Your task to perform on an android device: Go to notification settings Image 0: 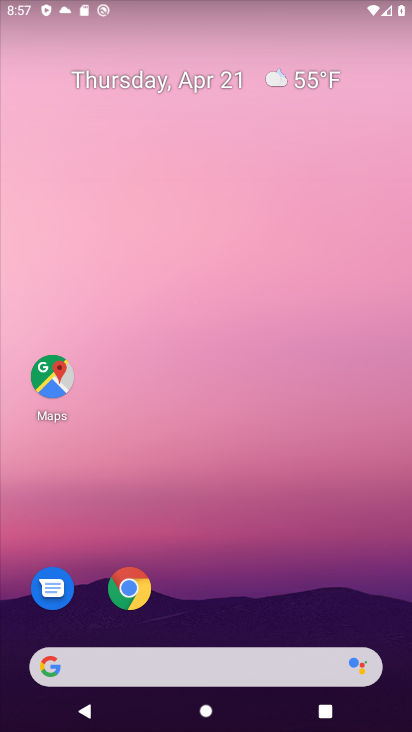
Step 0: drag from (209, 530) to (166, 7)
Your task to perform on an android device: Go to notification settings Image 1: 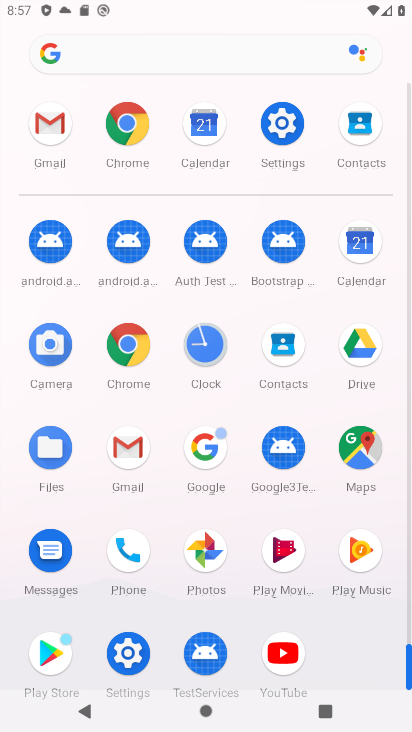
Step 1: click (283, 123)
Your task to perform on an android device: Go to notification settings Image 2: 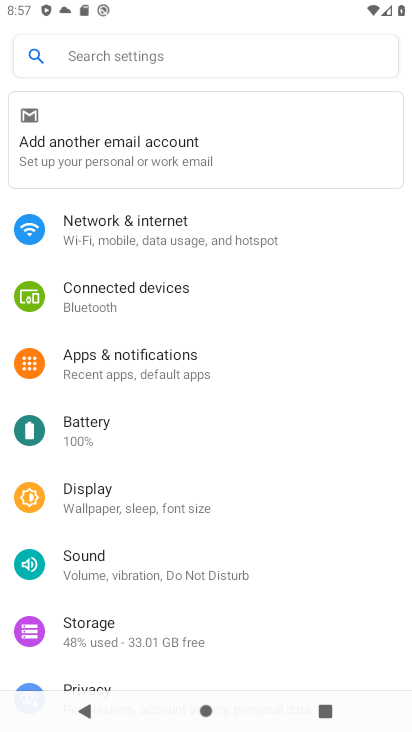
Step 2: click (191, 355)
Your task to perform on an android device: Go to notification settings Image 3: 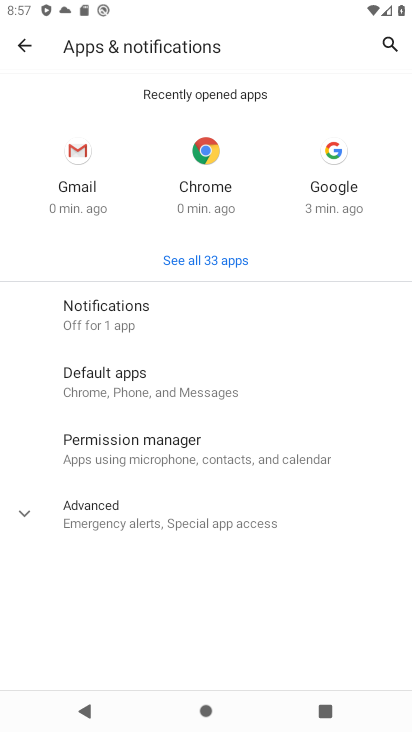
Step 3: click (158, 319)
Your task to perform on an android device: Go to notification settings Image 4: 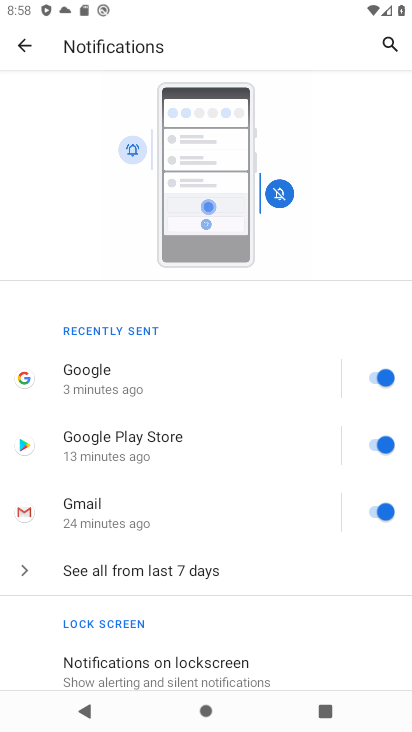
Step 4: drag from (209, 568) to (289, 148)
Your task to perform on an android device: Go to notification settings Image 5: 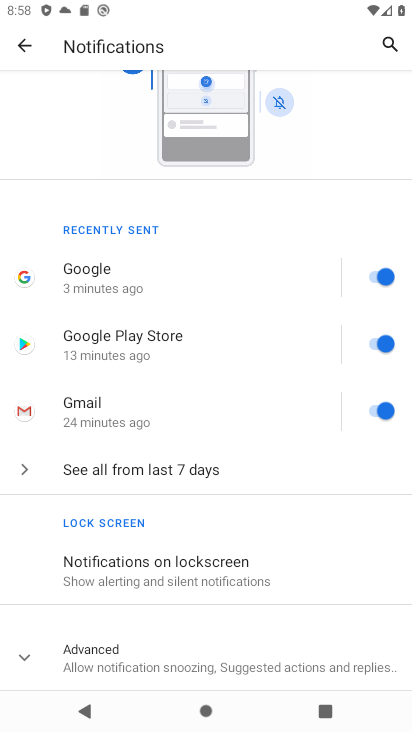
Step 5: drag from (248, 608) to (270, 236)
Your task to perform on an android device: Go to notification settings Image 6: 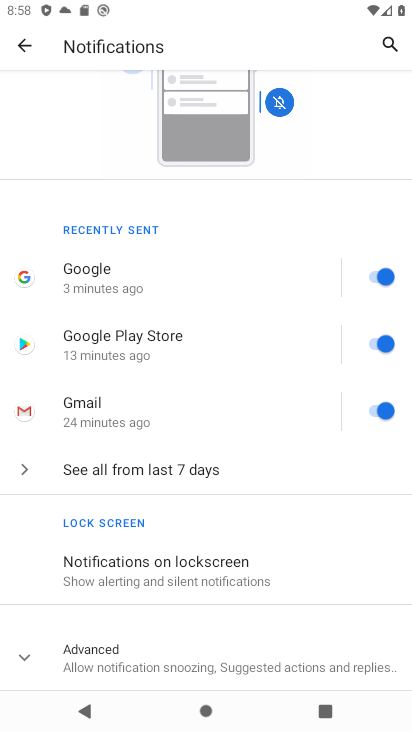
Step 6: click (32, 654)
Your task to perform on an android device: Go to notification settings Image 7: 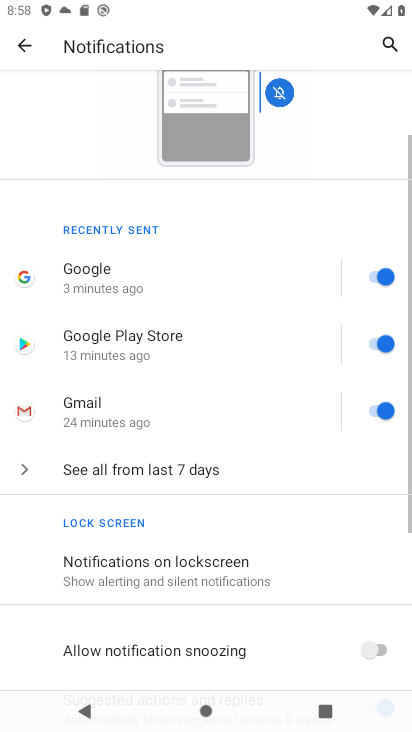
Step 7: task complete